Your task to perform on an android device: change notification settings in the gmail app Image 0: 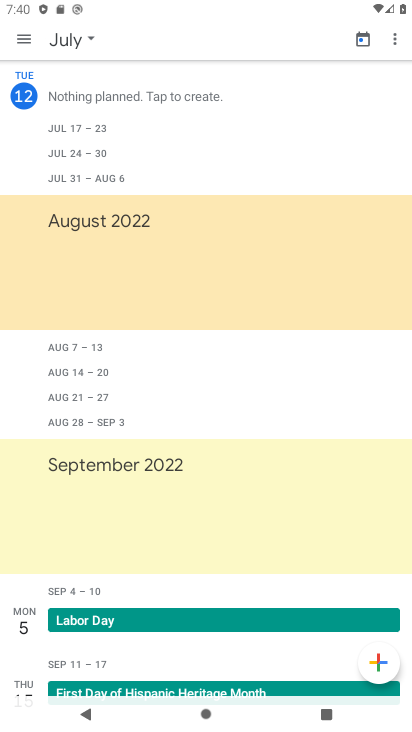
Step 0: press home button
Your task to perform on an android device: change notification settings in the gmail app Image 1: 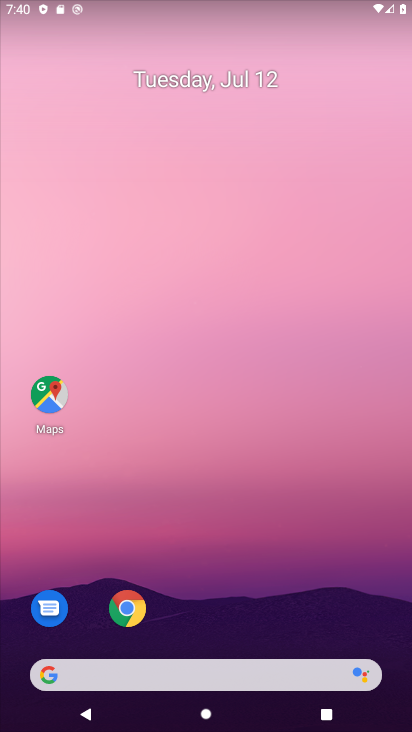
Step 1: drag from (170, 663) to (350, 359)
Your task to perform on an android device: change notification settings in the gmail app Image 2: 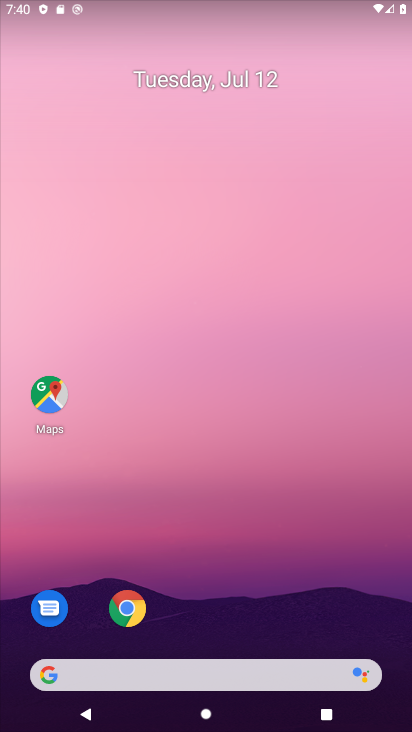
Step 2: drag from (113, 681) to (264, 397)
Your task to perform on an android device: change notification settings in the gmail app Image 3: 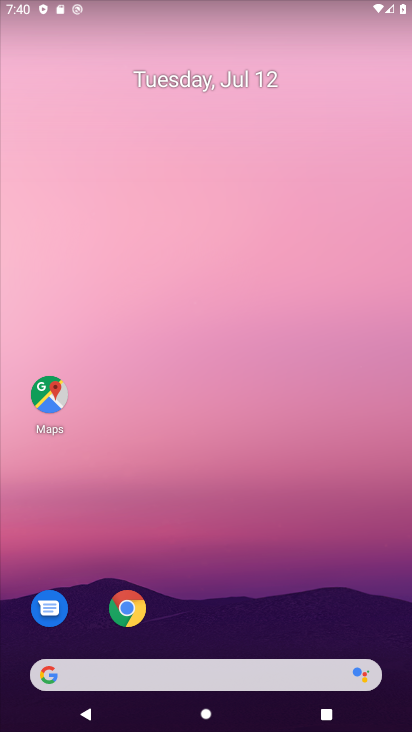
Step 3: drag from (171, 689) to (294, 308)
Your task to perform on an android device: change notification settings in the gmail app Image 4: 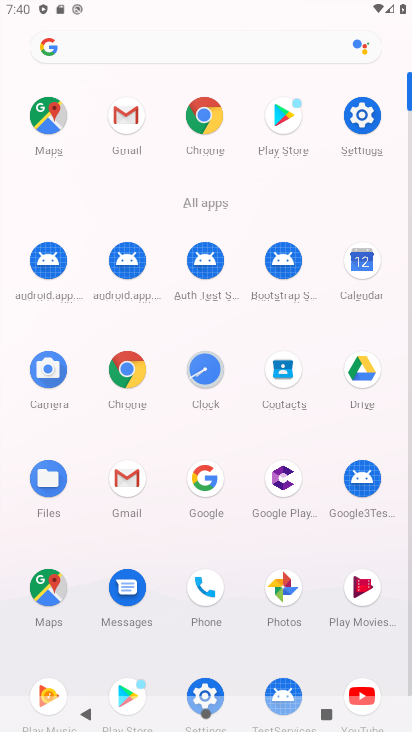
Step 4: click (127, 482)
Your task to perform on an android device: change notification settings in the gmail app Image 5: 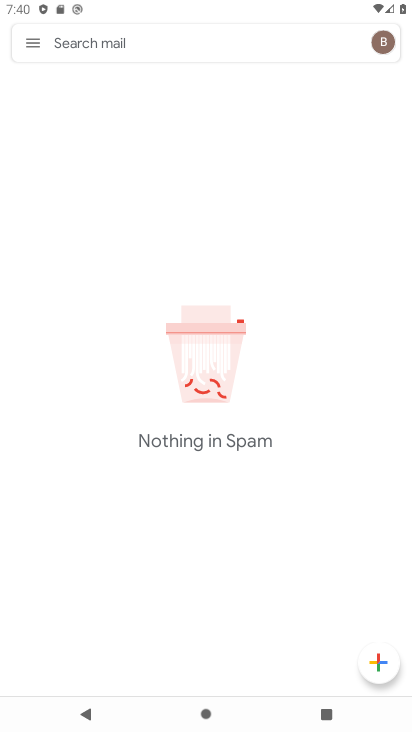
Step 5: click (33, 39)
Your task to perform on an android device: change notification settings in the gmail app Image 6: 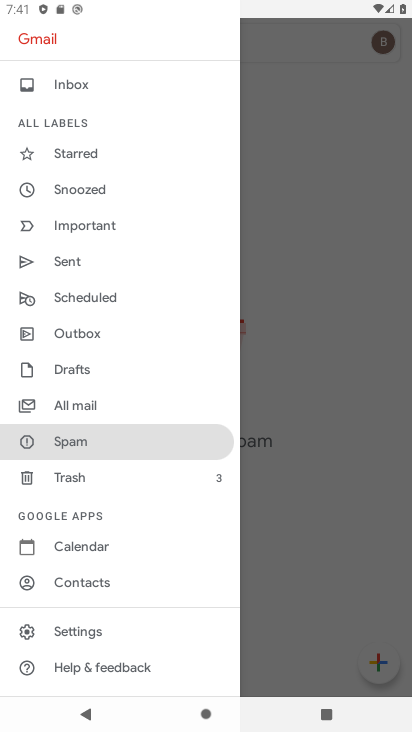
Step 6: click (95, 620)
Your task to perform on an android device: change notification settings in the gmail app Image 7: 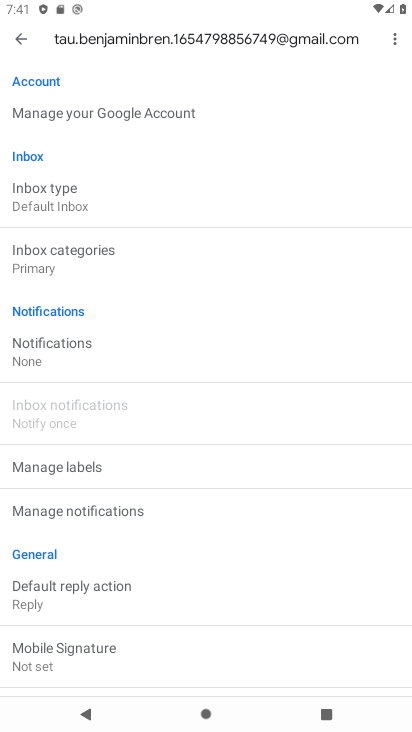
Step 7: click (49, 359)
Your task to perform on an android device: change notification settings in the gmail app Image 8: 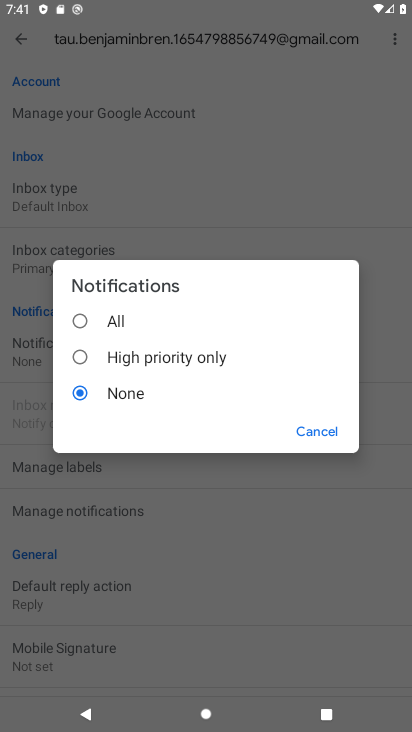
Step 8: click (81, 323)
Your task to perform on an android device: change notification settings in the gmail app Image 9: 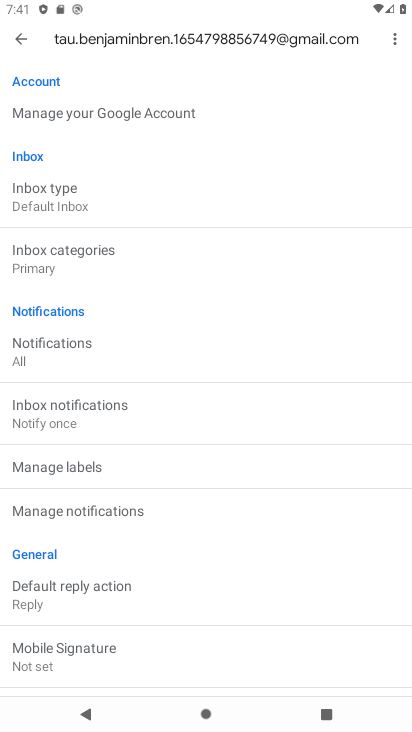
Step 9: task complete